Your task to perform on an android device: Go to Yahoo.com Image 0: 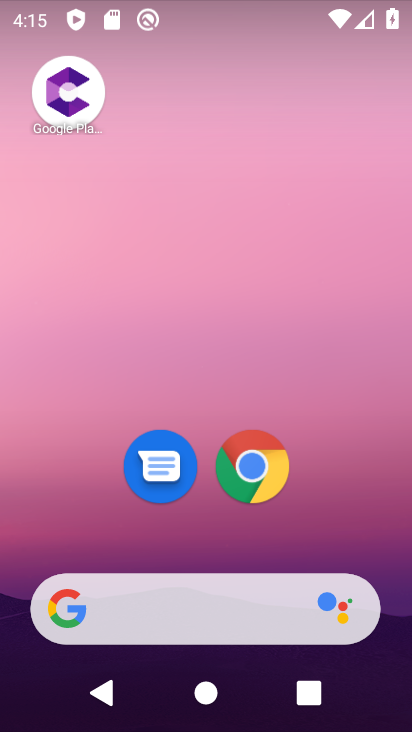
Step 0: click (262, 462)
Your task to perform on an android device: Go to Yahoo.com Image 1: 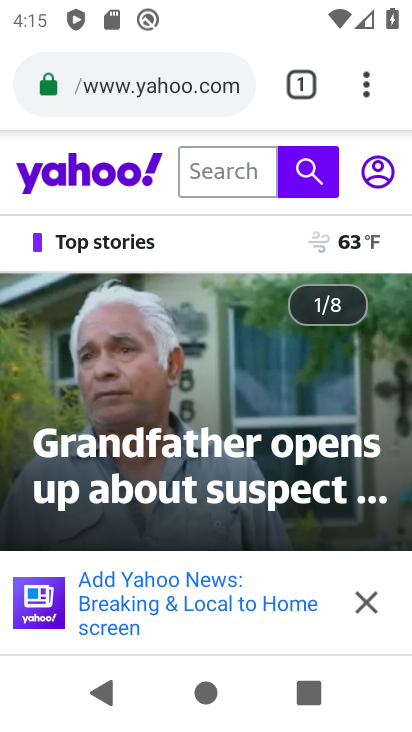
Step 1: task complete